Your task to perform on an android device: allow notifications from all sites in the chrome app Image 0: 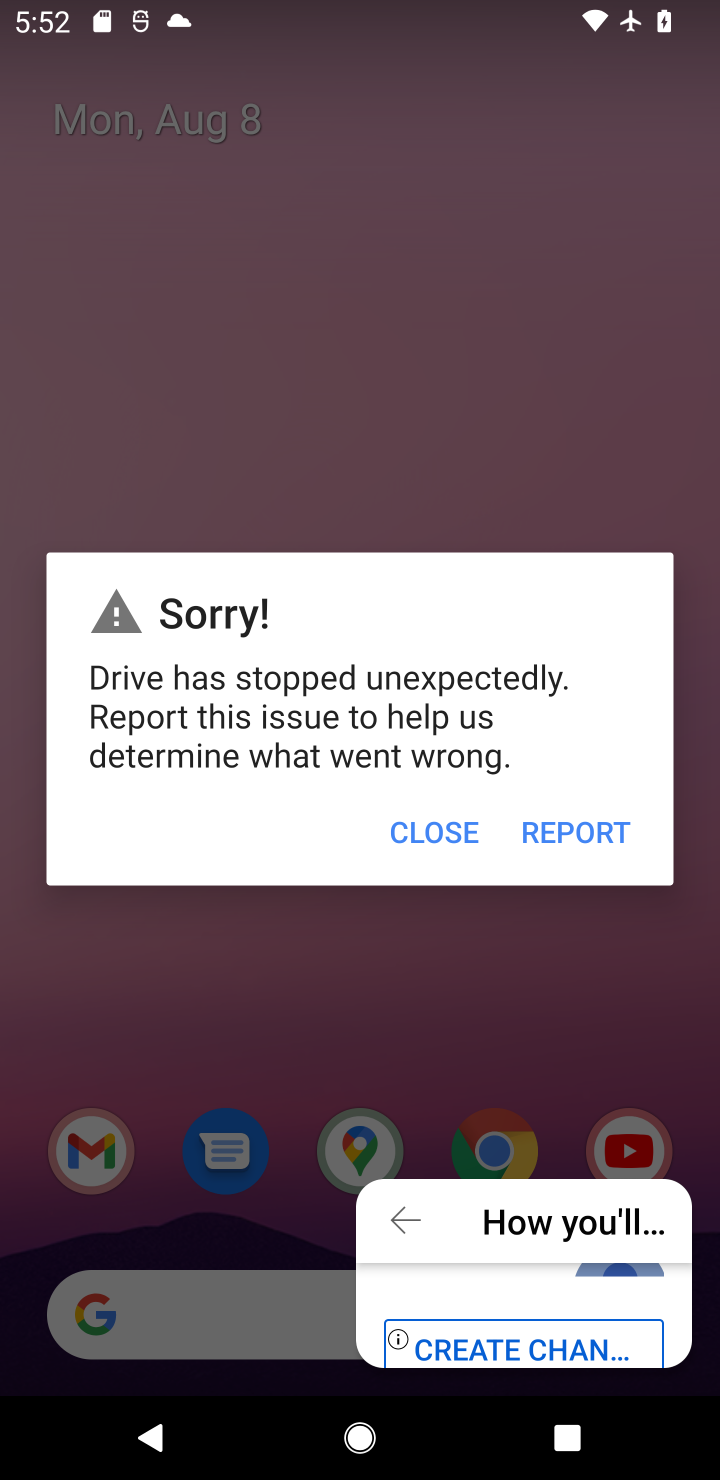
Step 0: click (436, 843)
Your task to perform on an android device: allow notifications from all sites in the chrome app Image 1: 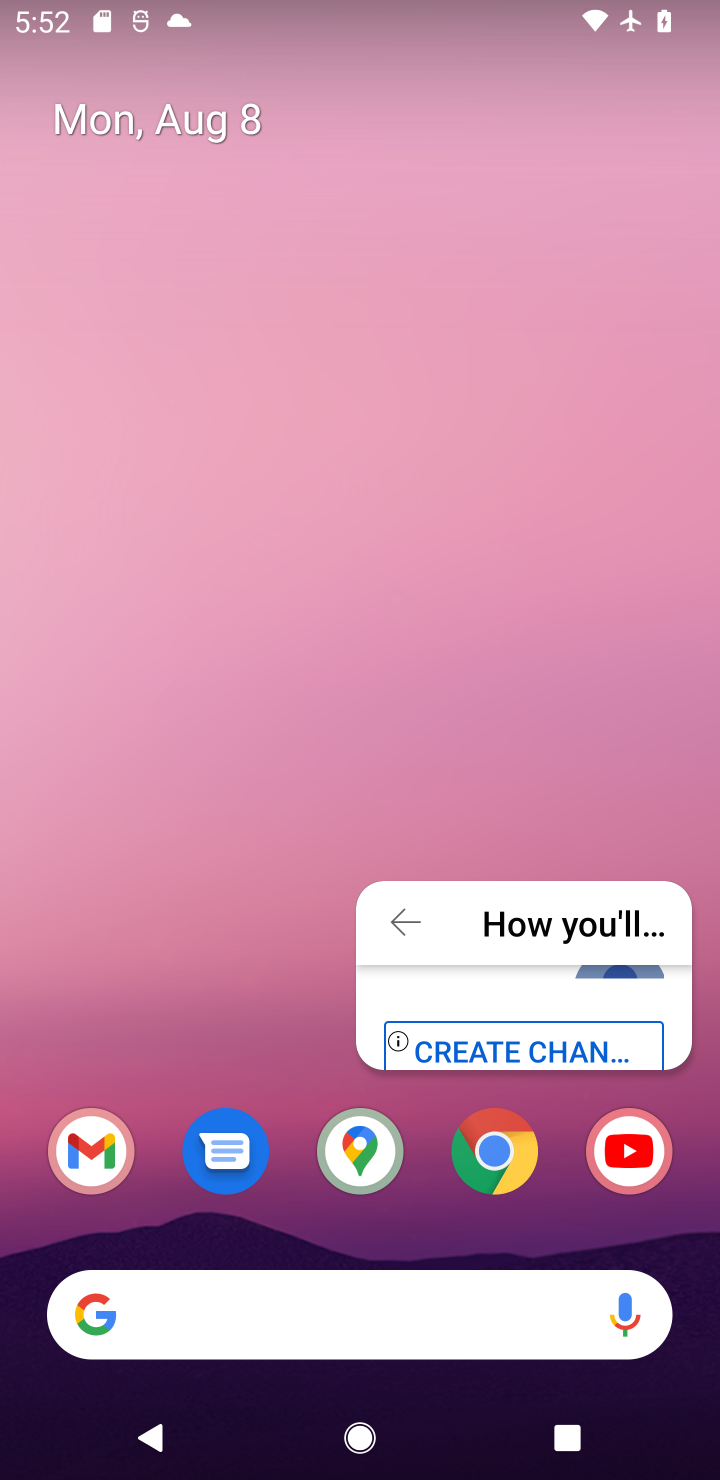
Step 1: click (492, 1194)
Your task to perform on an android device: allow notifications from all sites in the chrome app Image 2: 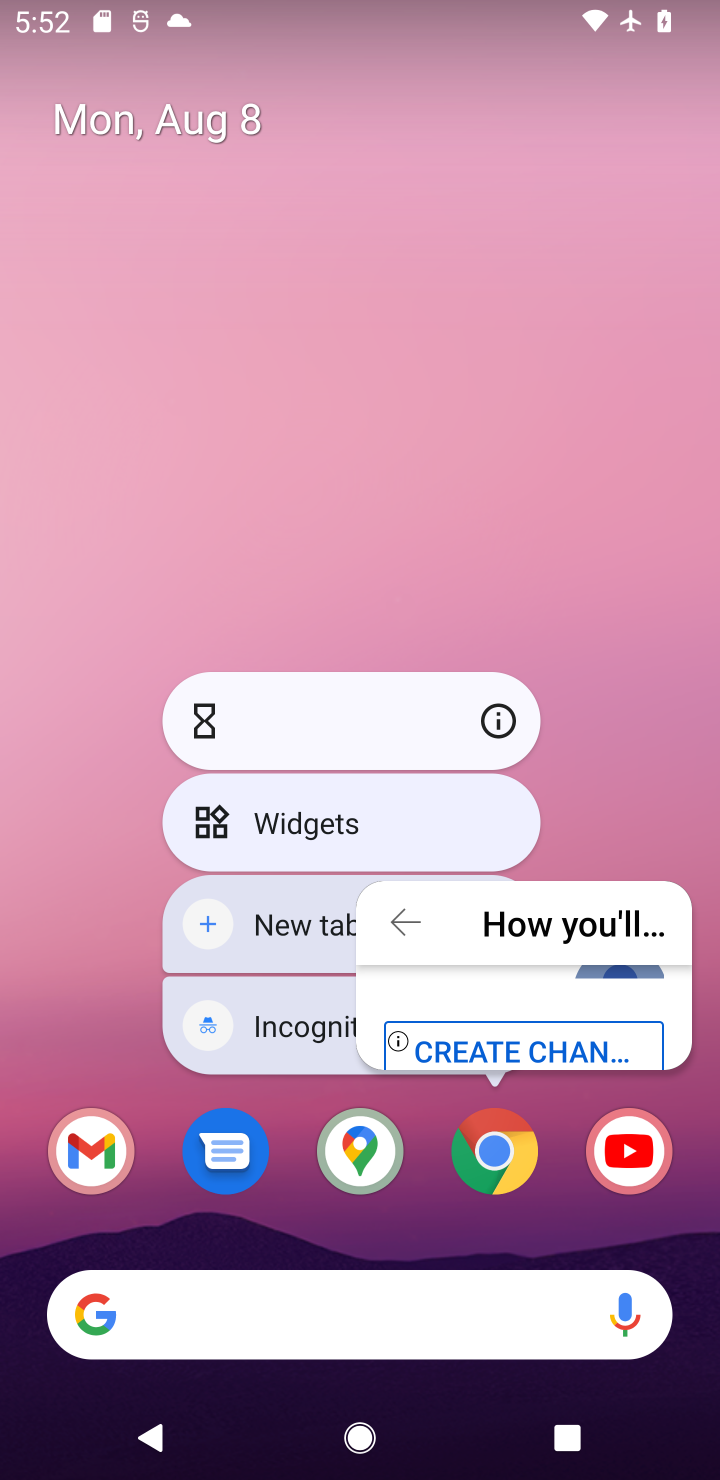
Step 2: click (506, 1167)
Your task to perform on an android device: allow notifications from all sites in the chrome app Image 3: 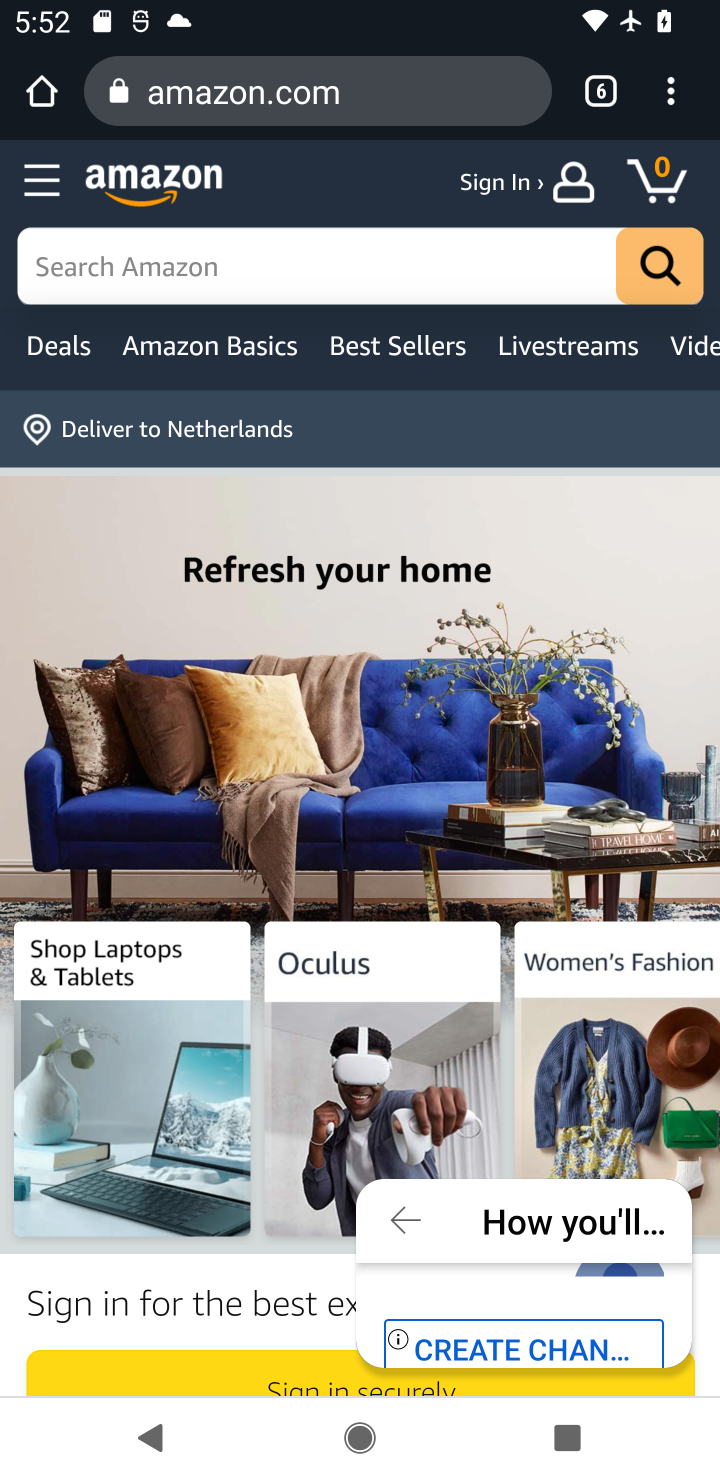
Step 3: click (686, 105)
Your task to perform on an android device: allow notifications from all sites in the chrome app Image 4: 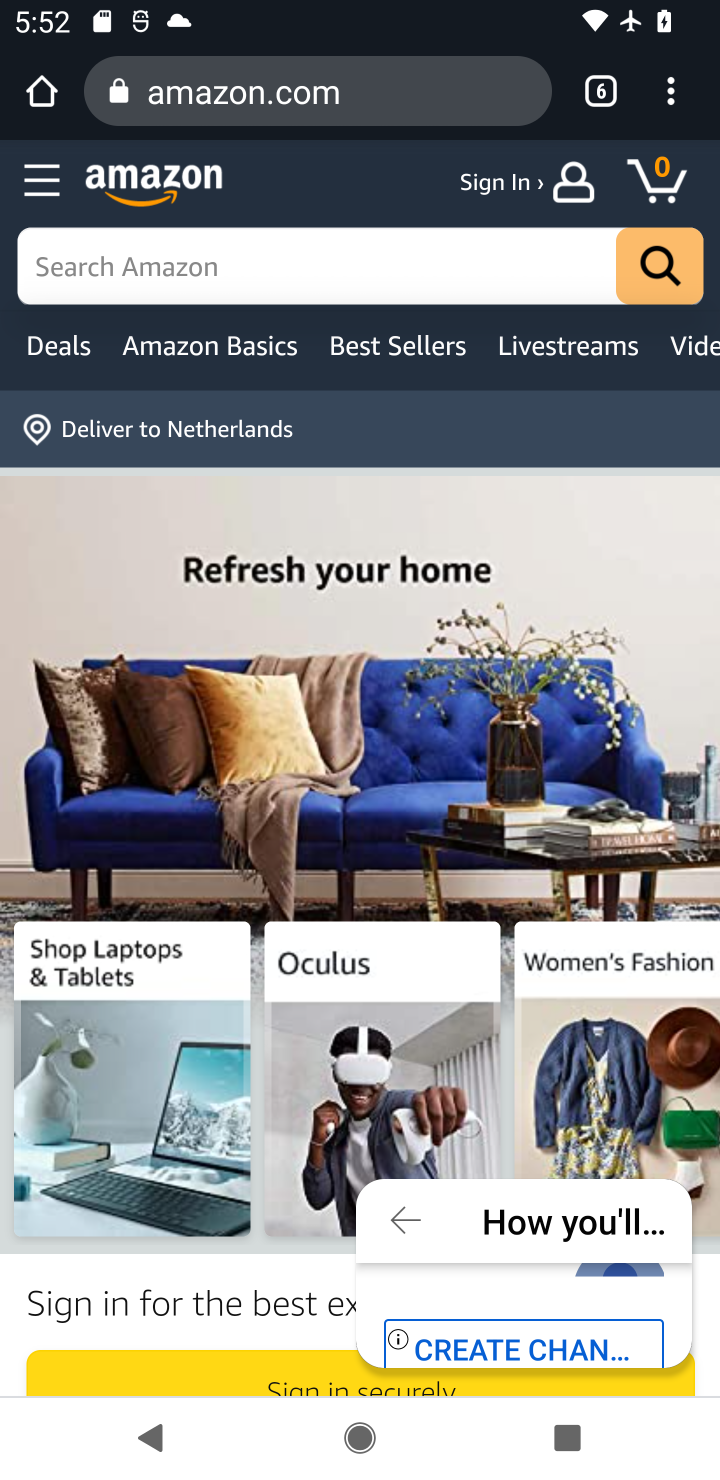
Step 4: drag from (666, 110) to (309, 1208)
Your task to perform on an android device: allow notifications from all sites in the chrome app Image 5: 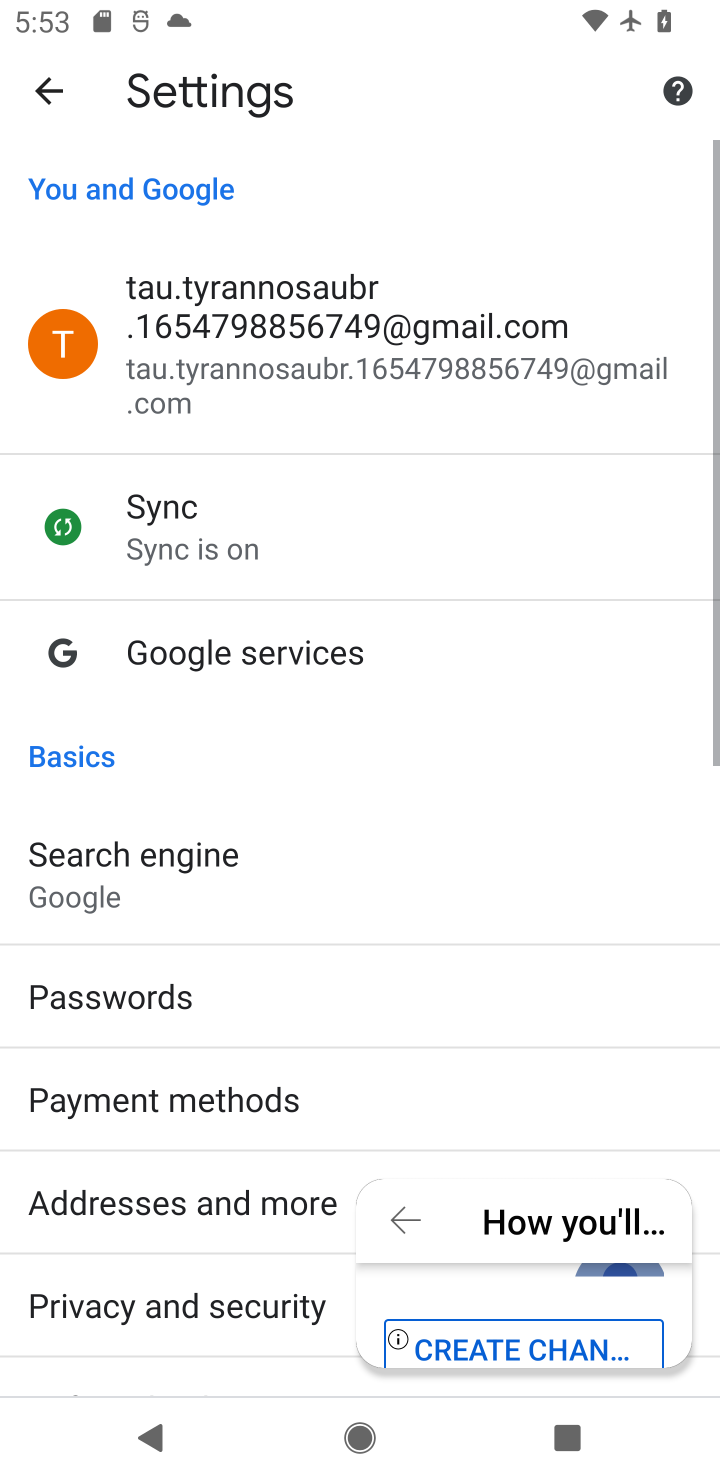
Step 5: drag from (270, 1154) to (350, 501)
Your task to perform on an android device: allow notifications from all sites in the chrome app Image 6: 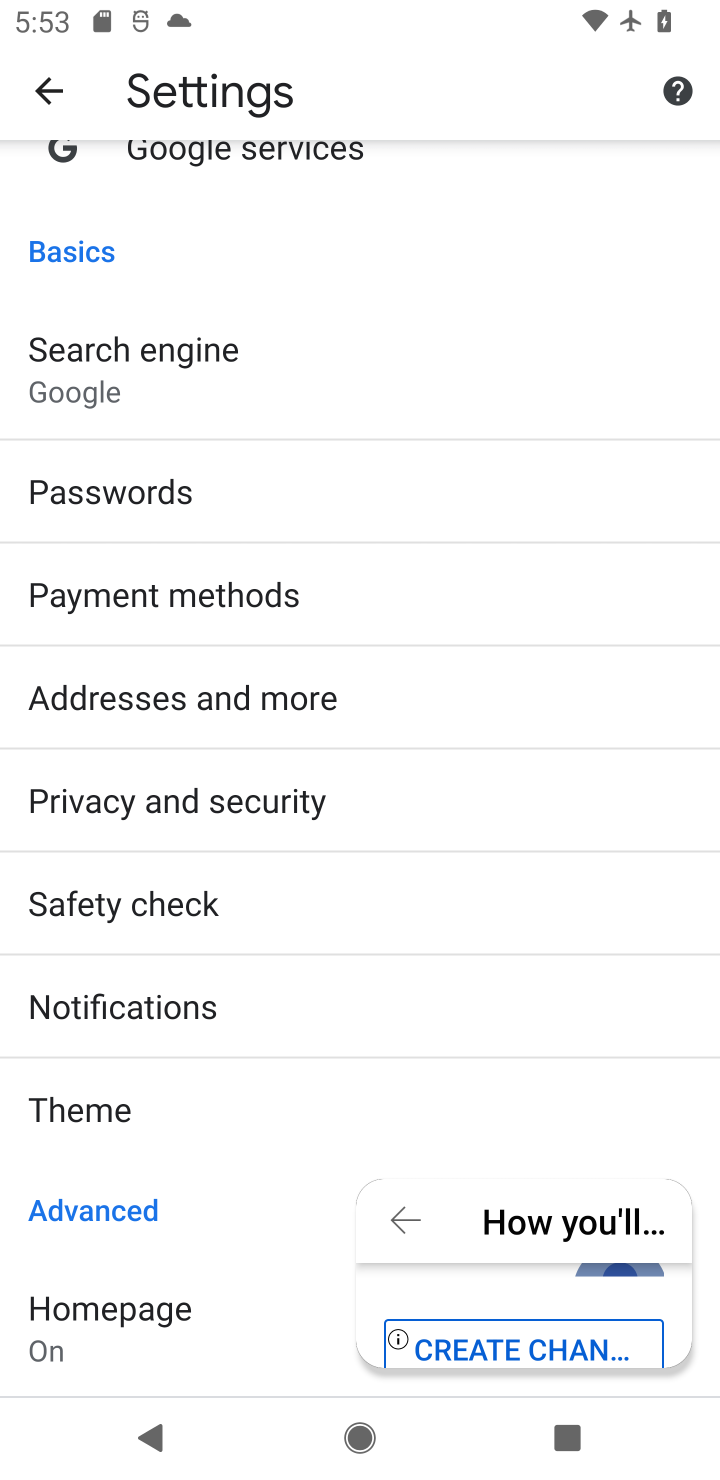
Step 6: drag from (300, 1141) to (327, 673)
Your task to perform on an android device: allow notifications from all sites in the chrome app Image 7: 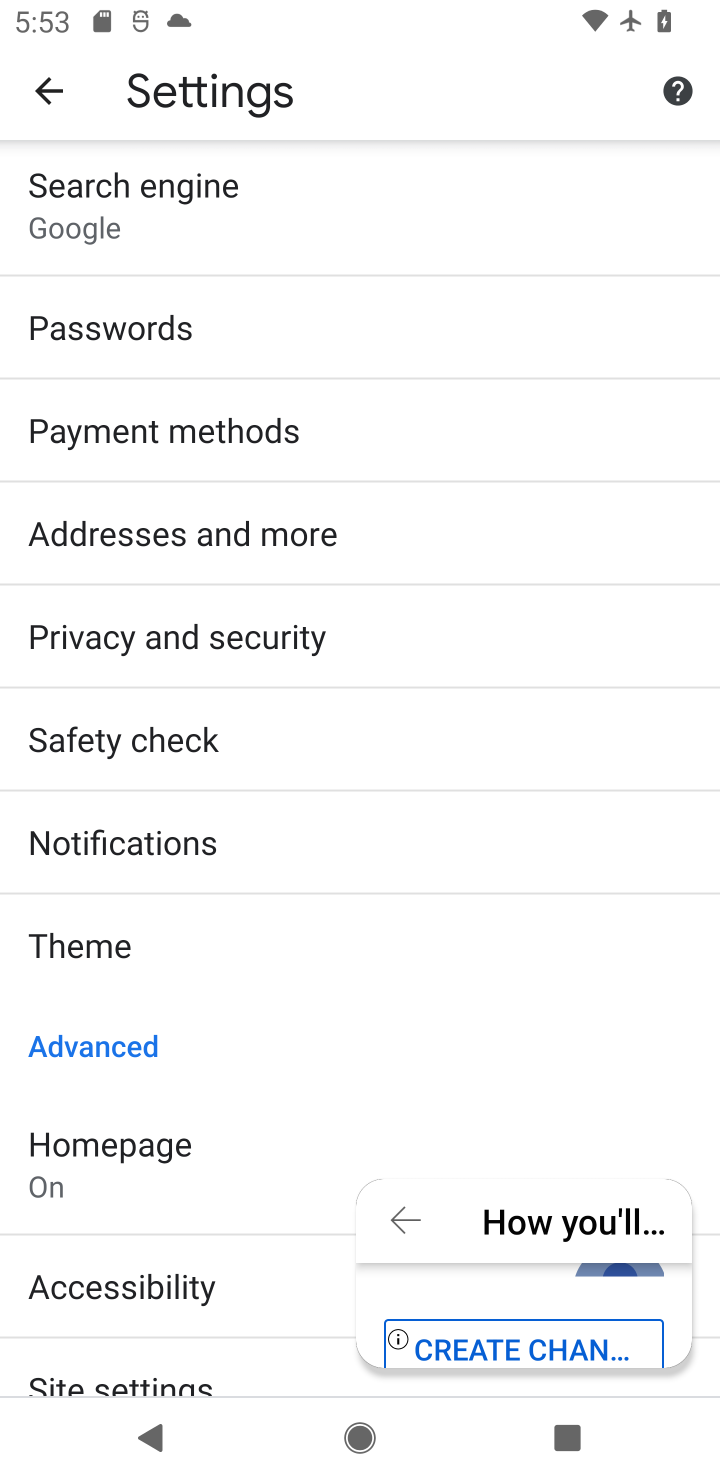
Step 7: drag from (342, 1116) to (310, 521)
Your task to perform on an android device: allow notifications from all sites in the chrome app Image 8: 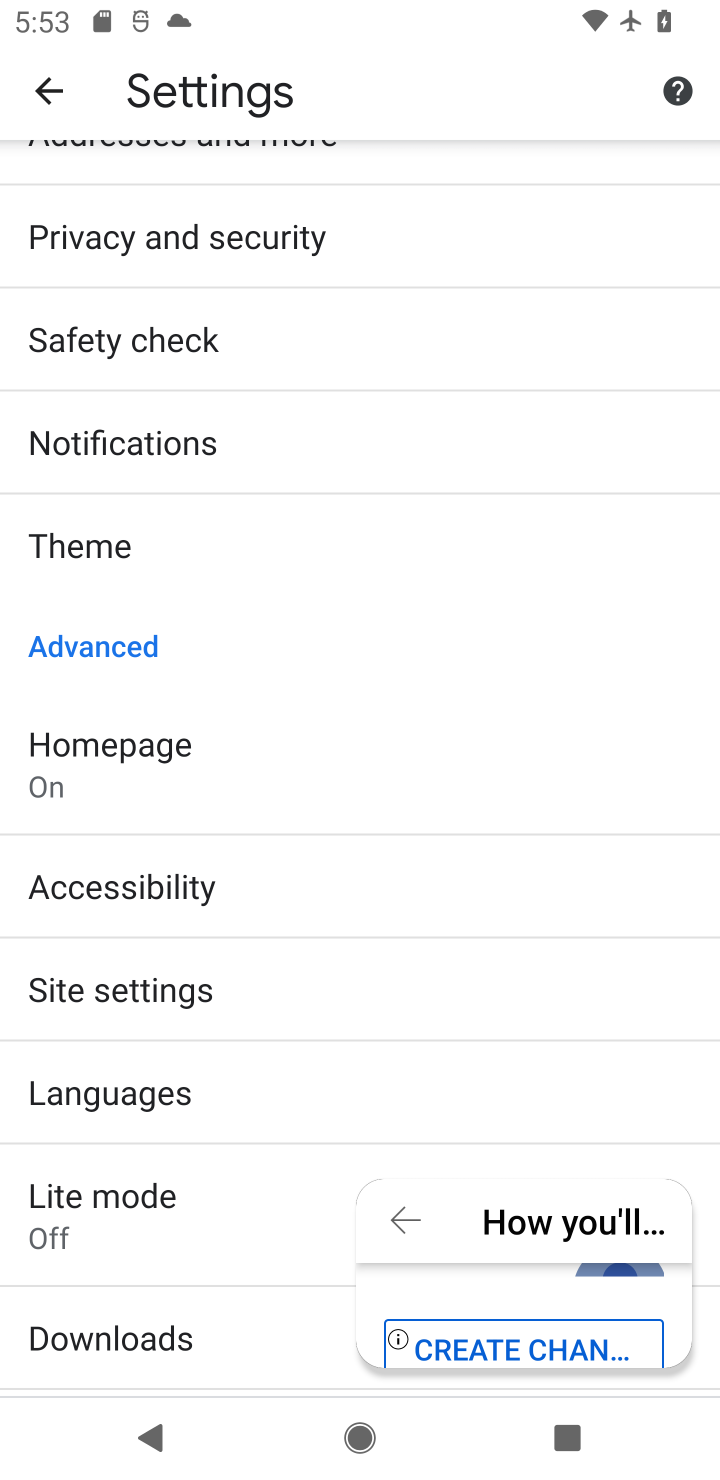
Step 8: click (226, 1014)
Your task to perform on an android device: allow notifications from all sites in the chrome app Image 9: 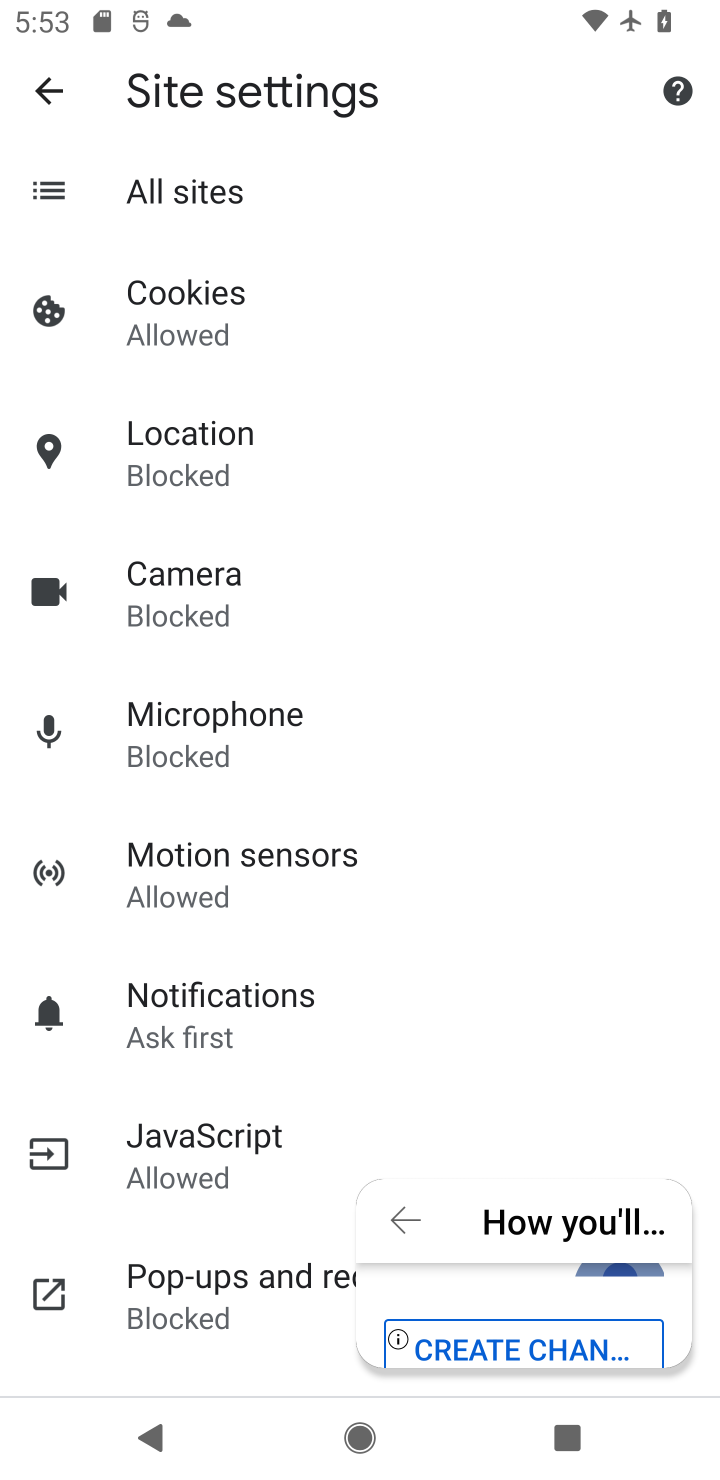
Step 9: click (319, 234)
Your task to perform on an android device: allow notifications from all sites in the chrome app Image 10: 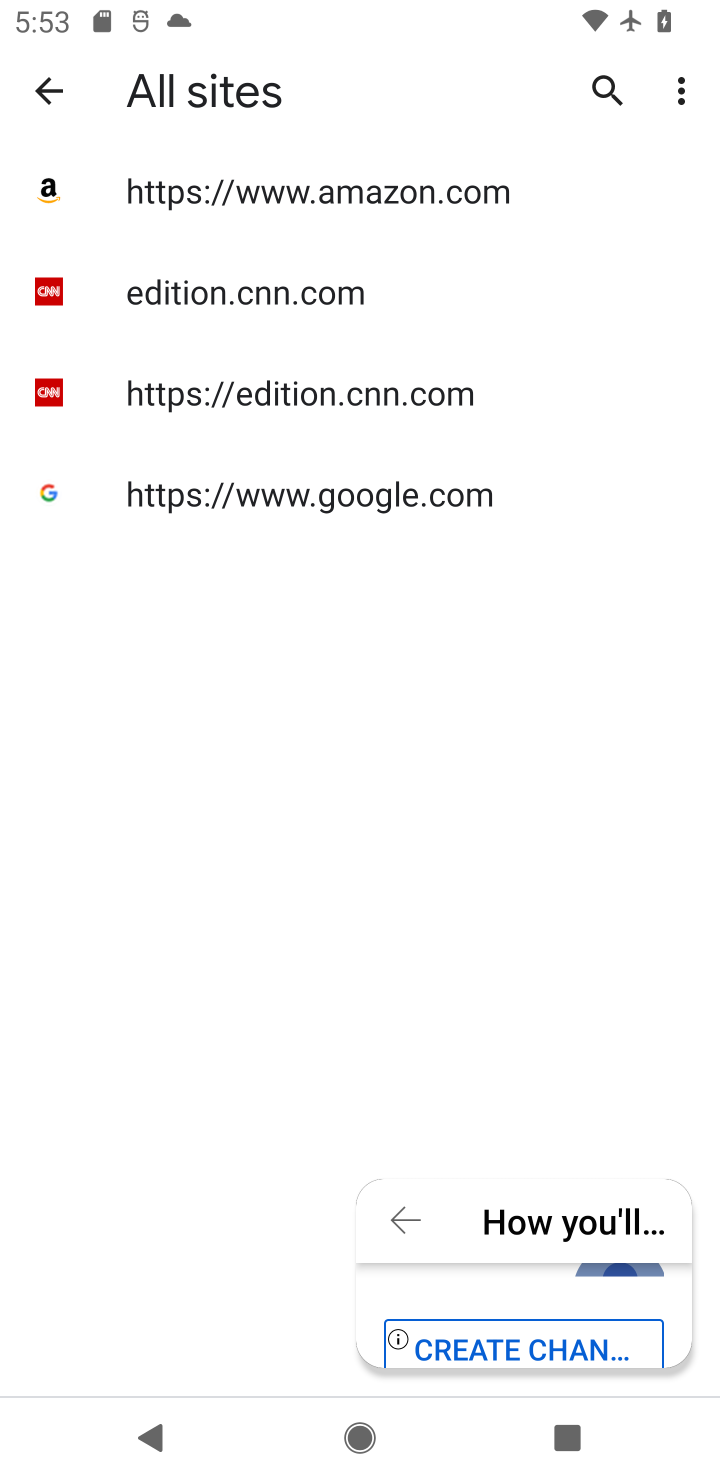
Step 10: click (385, 505)
Your task to perform on an android device: allow notifications from all sites in the chrome app Image 11: 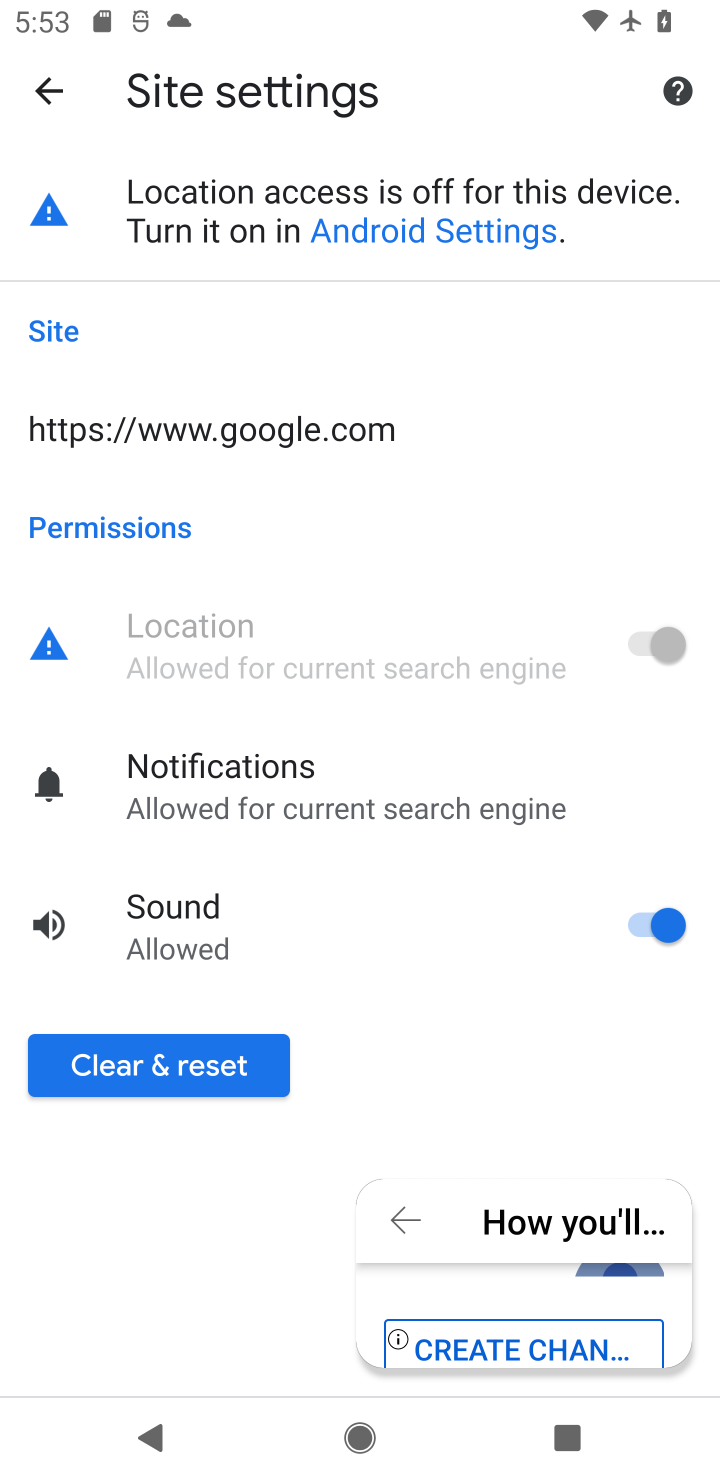
Step 11: click (359, 743)
Your task to perform on an android device: allow notifications from all sites in the chrome app Image 12: 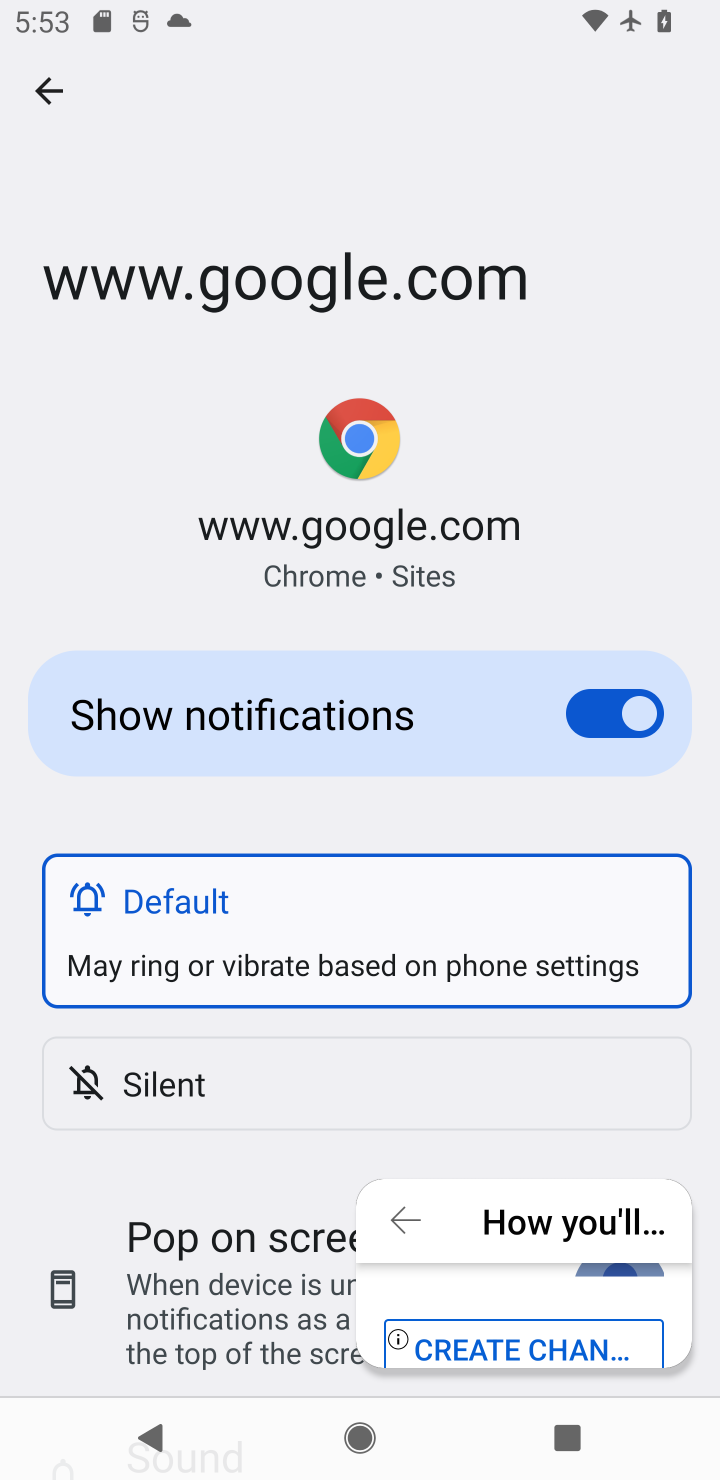
Step 12: task complete